Your task to perform on an android device: open app "Grab" (install if not already installed), go to login, and select forgot password Image 0: 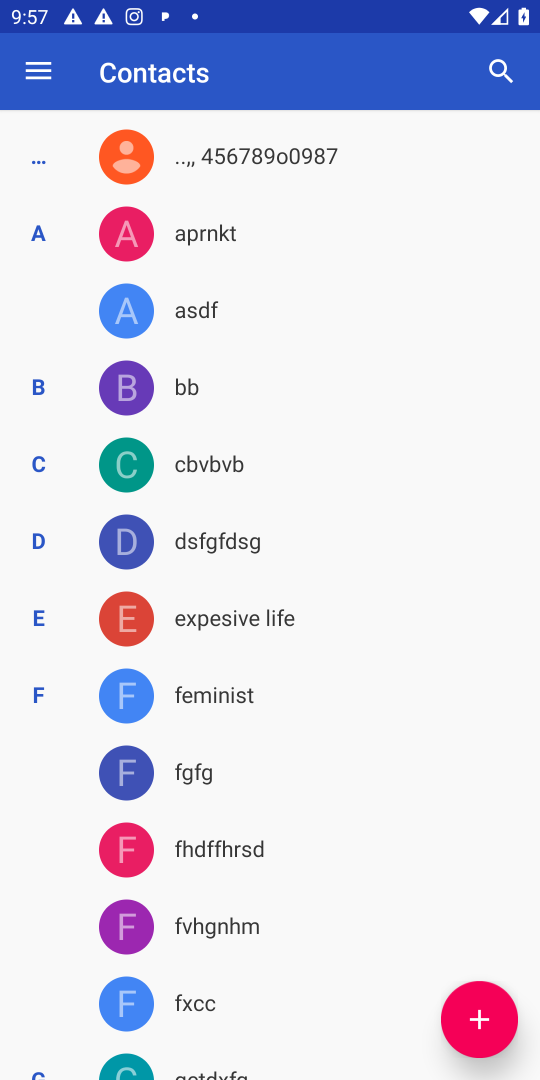
Step 0: press home button
Your task to perform on an android device: open app "Grab" (install if not already installed), go to login, and select forgot password Image 1: 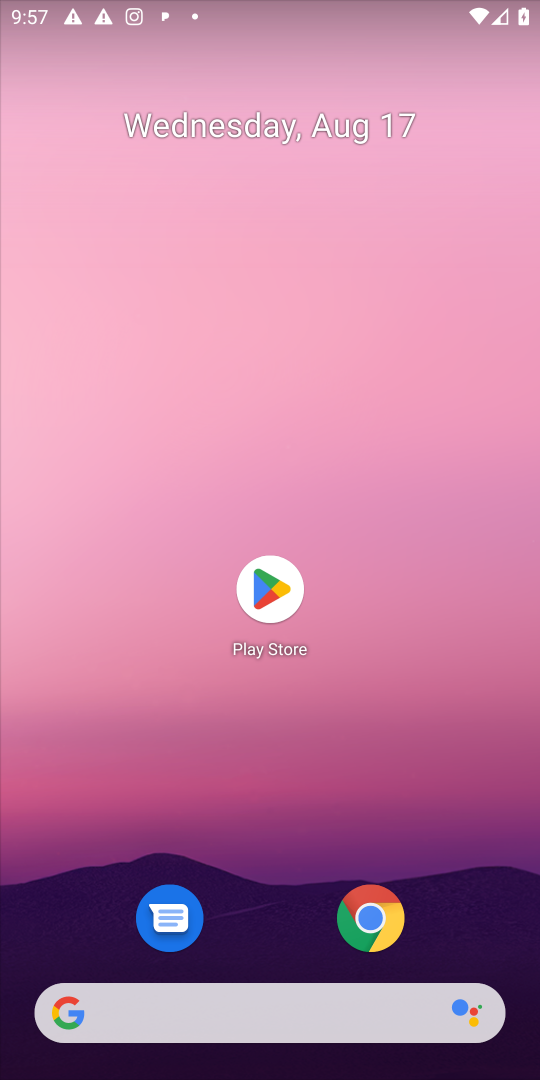
Step 1: click (272, 587)
Your task to perform on an android device: open app "Grab" (install if not already installed), go to login, and select forgot password Image 2: 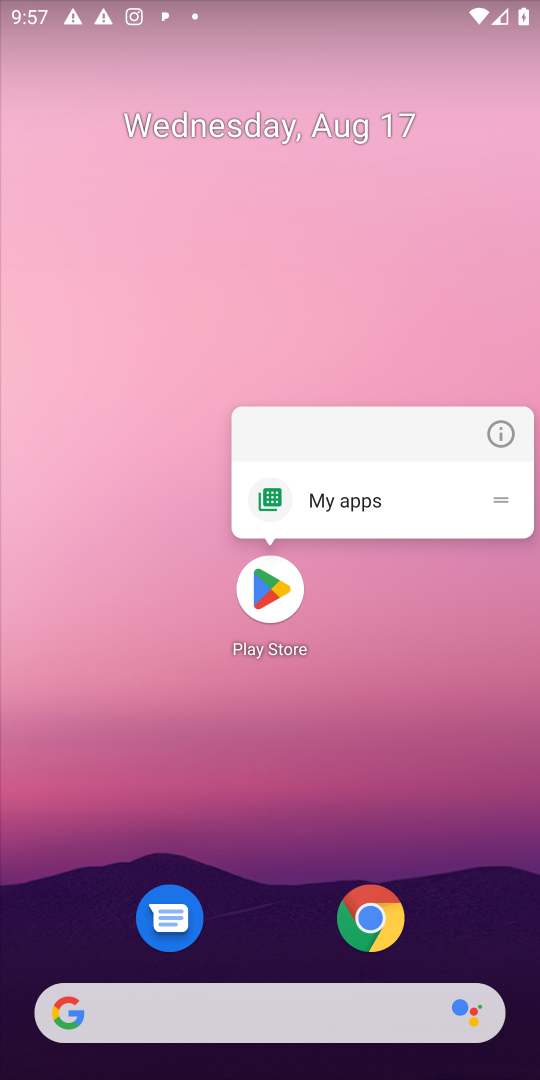
Step 2: click (267, 594)
Your task to perform on an android device: open app "Grab" (install if not already installed), go to login, and select forgot password Image 3: 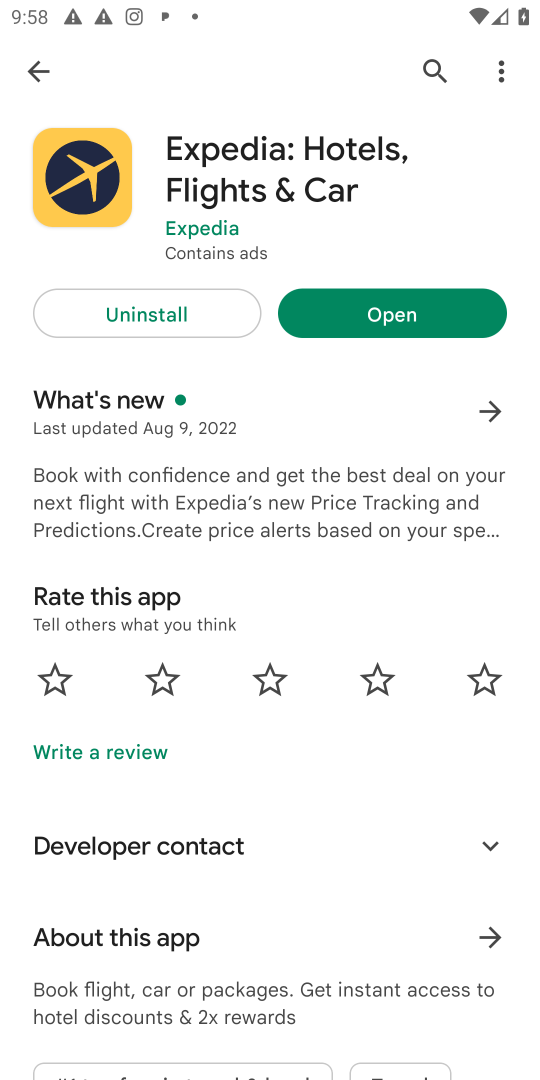
Step 3: click (437, 69)
Your task to perform on an android device: open app "Grab" (install if not already installed), go to login, and select forgot password Image 4: 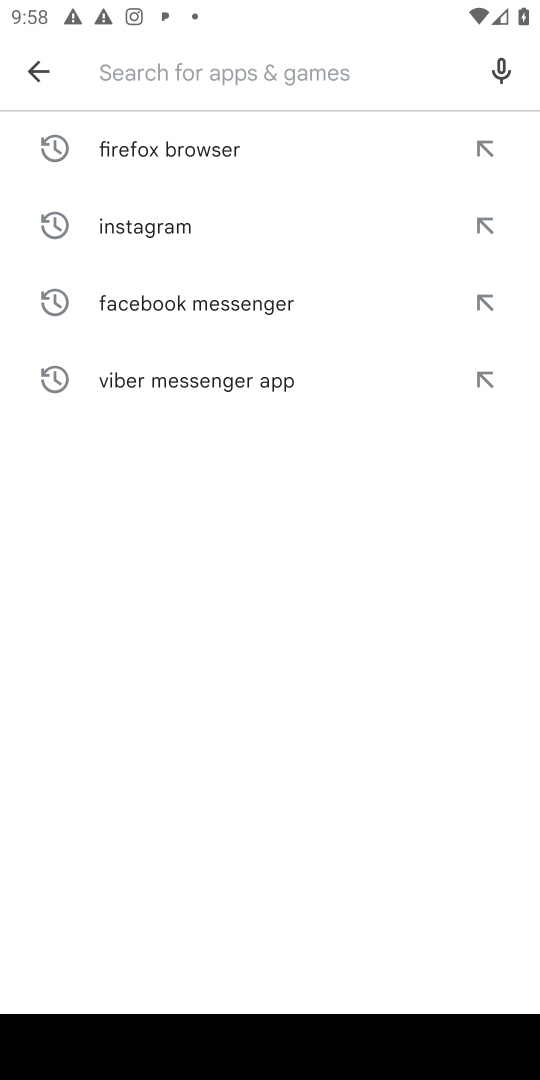
Step 4: type "Grab"
Your task to perform on an android device: open app "Grab" (install if not already installed), go to login, and select forgot password Image 5: 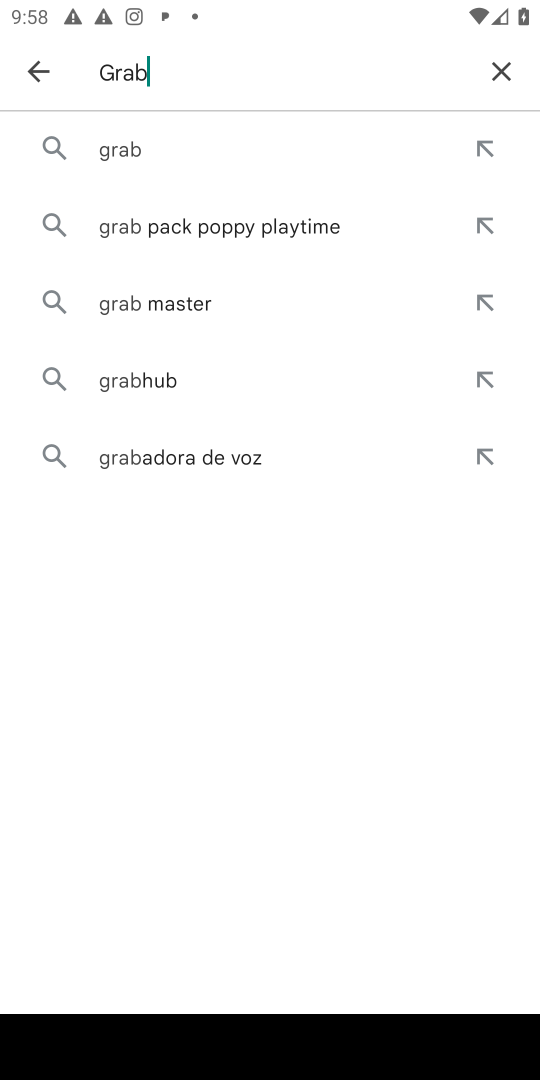
Step 5: click (119, 153)
Your task to perform on an android device: open app "Grab" (install if not already installed), go to login, and select forgot password Image 6: 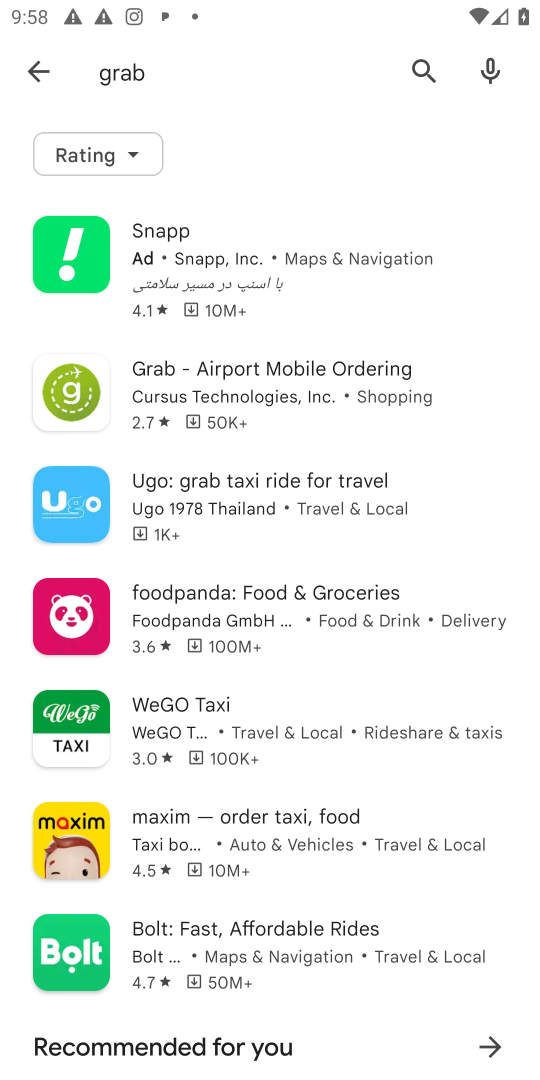
Step 6: click (263, 386)
Your task to perform on an android device: open app "Grab" (install if not already installed), go to login, and select forgot password Image 7: 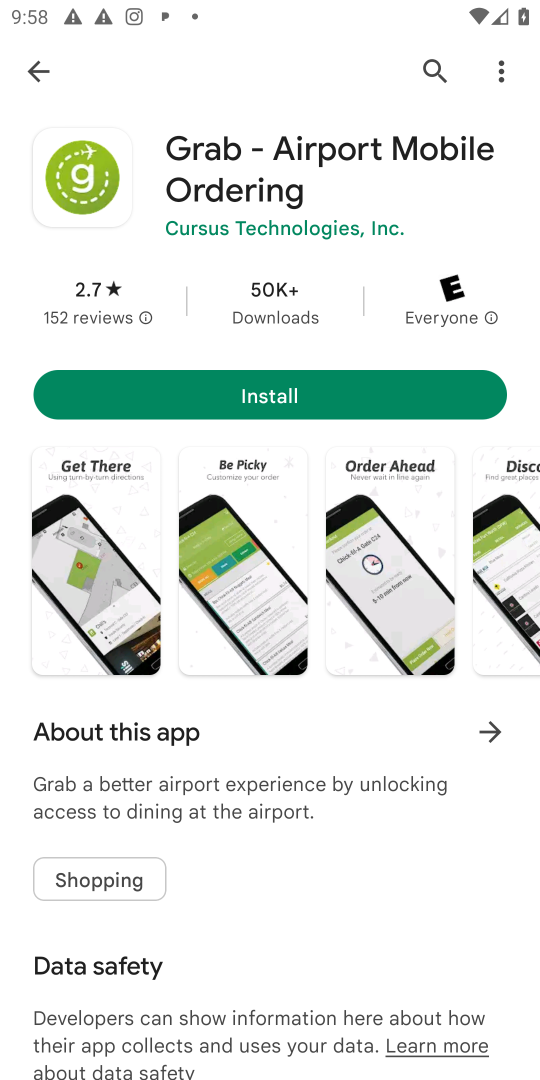
Step 7: click (275, 407)
Your task to perform on an android device: open app "Grab" (install if not already installed), go to login, and select forgot password Image 8: 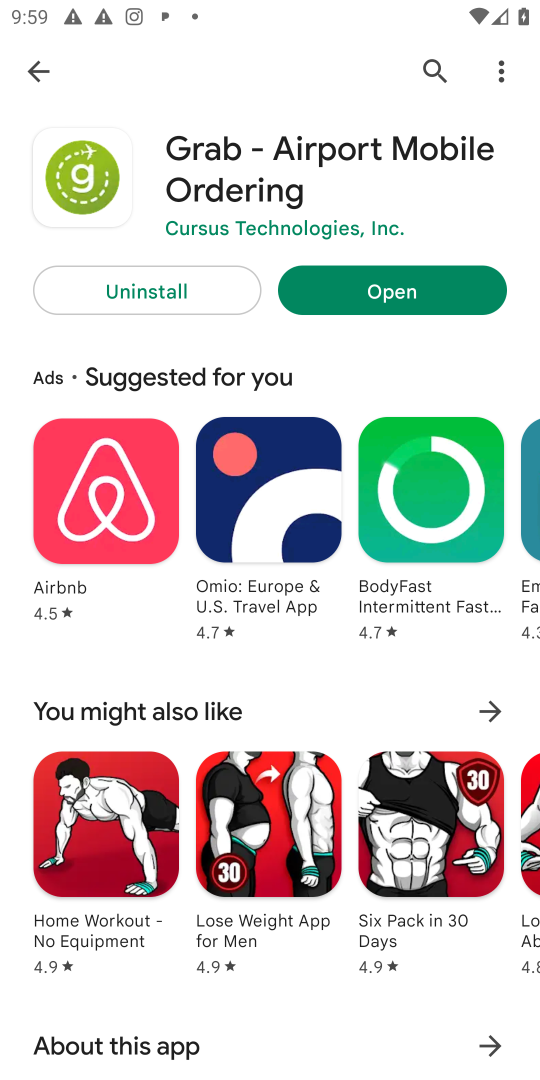
Step 8: click (384, 295)
Your task to perform on an android device: open app "Grab" (install if not already installed), go to login, and select forgot password Image 9: 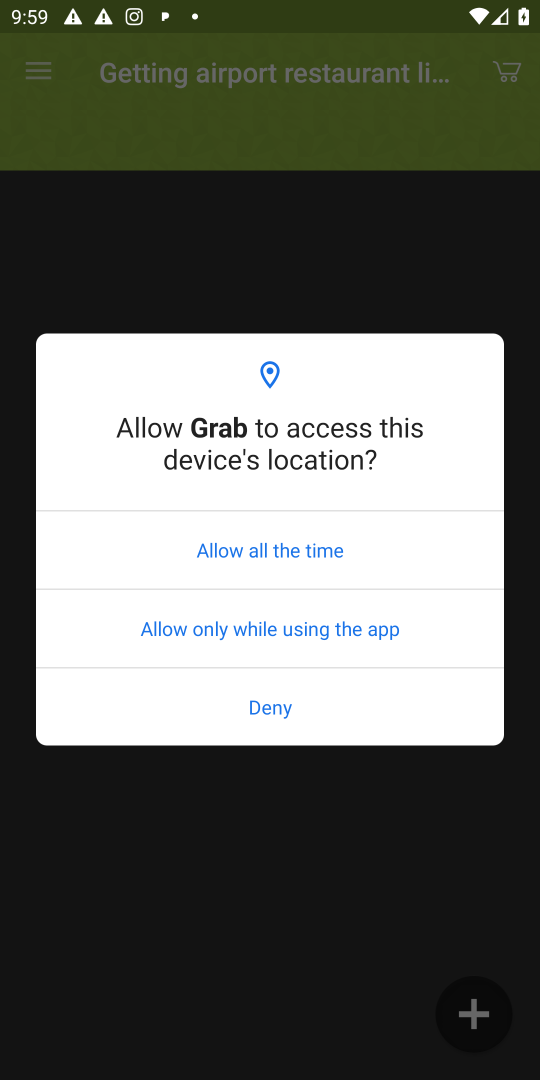
Step 9: click (323, 629)
Your task to perform on an android device: open app "Grab" (install if not already installed), go to login, and select forgot password Image 10: 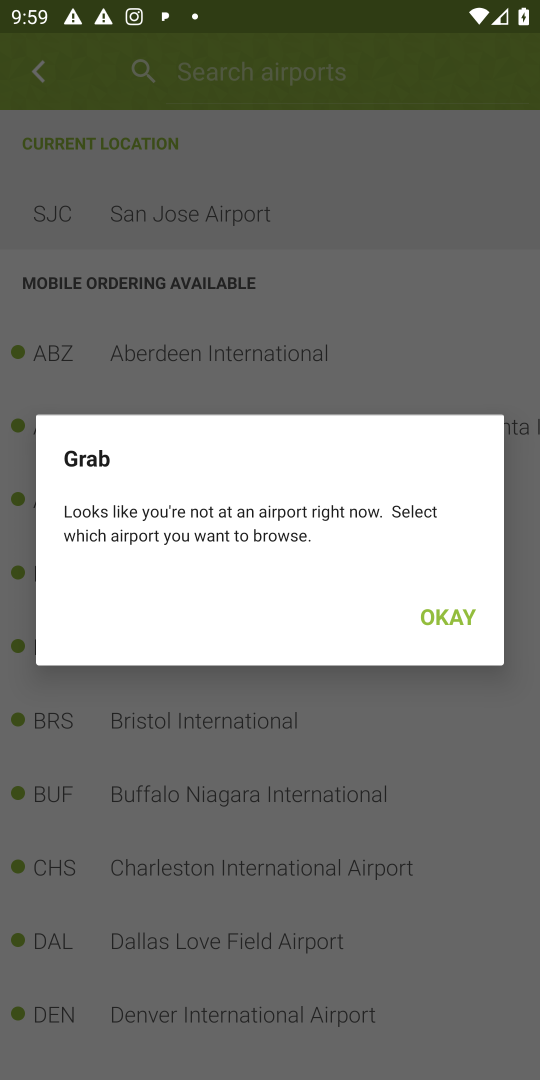
Step 10: task complete